Your task to perform on an android device: Go to Maps Image 0: 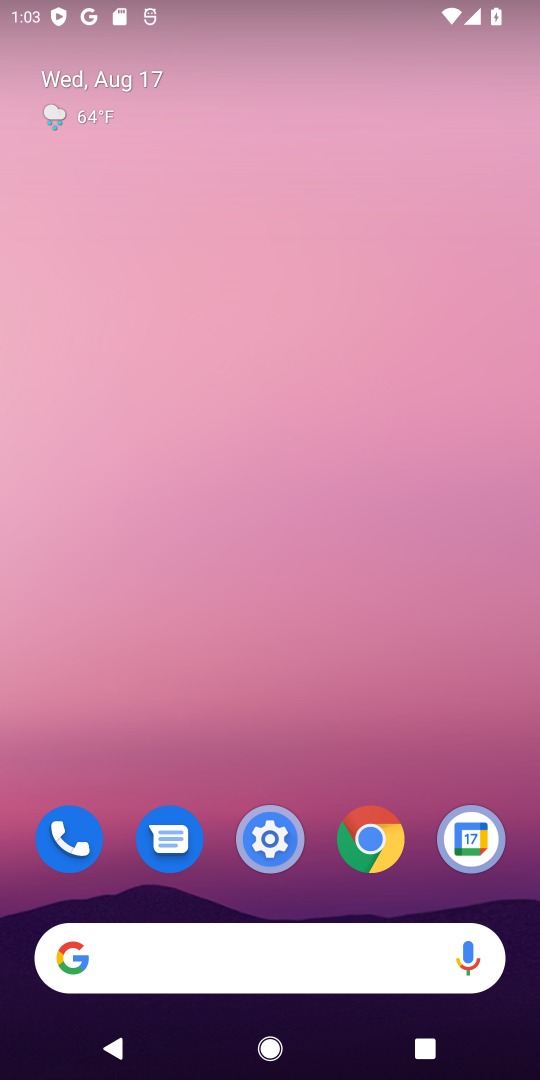
Step 0: drag from (296, 956) to (291, 157)
Your task to perform on an android device: Go to Maps Image 1: 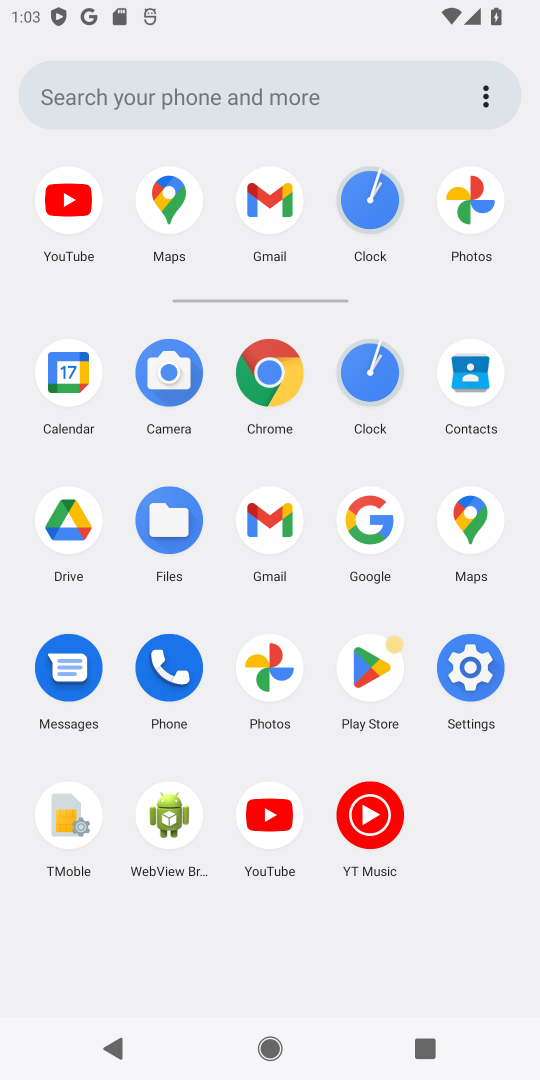
Step 1: click (169, 196)
Your task to perform on an android device: Go to Maps Image 2: 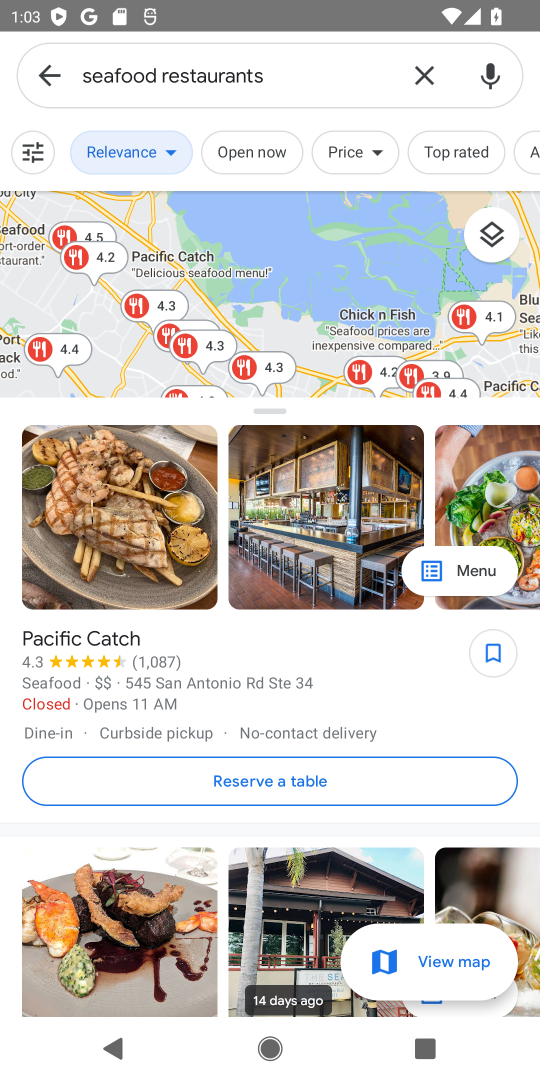
Step 2: task complete